Your task to perform on an android device: Do I have any events this weekend? Image 0: 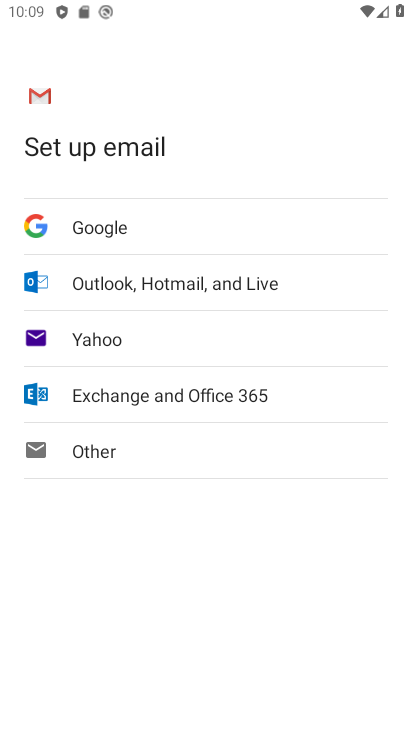
Step 0: press home button
Your task to perform on an android device: Do I have any events this weekend? Image 1: 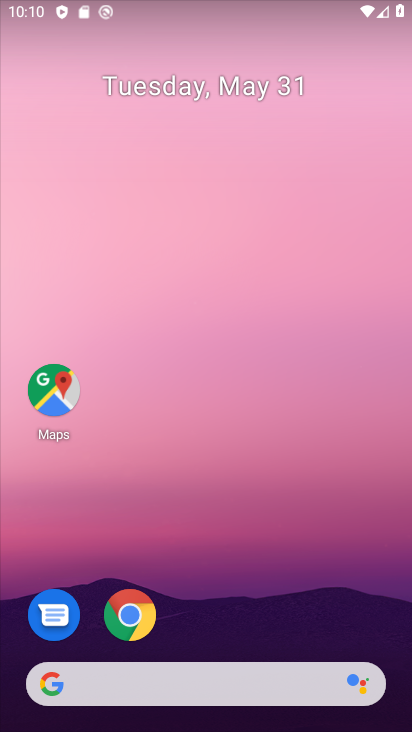
Step 1: task complete